Your task to perform on an android device: Open Maps and search for coffee Image 0: 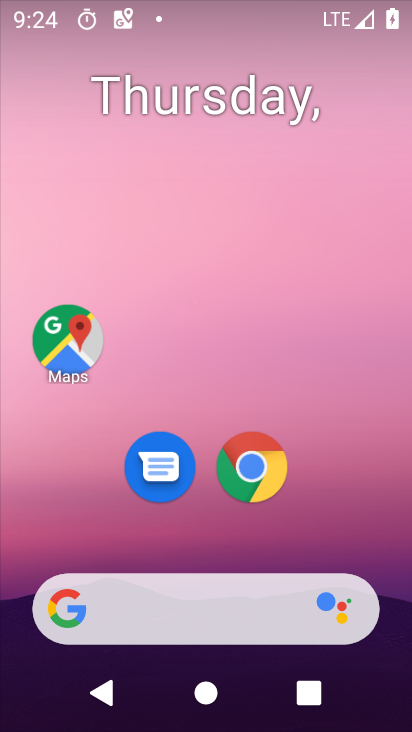
Step 0: drag from (321, 561) to (380, 118)
Your task to perform on an android device: Open Maps and search for coffee Image 1: 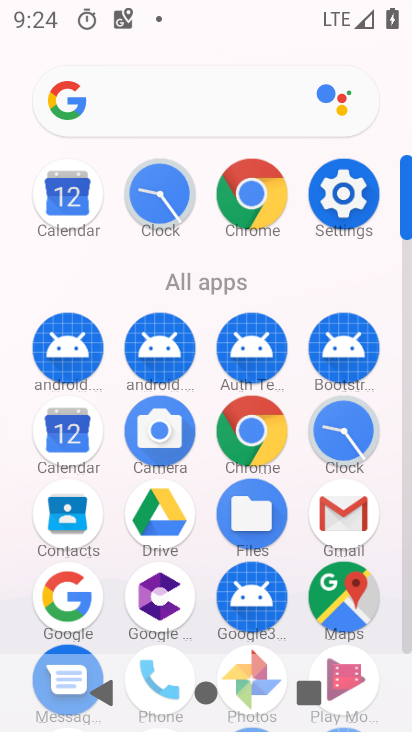
Step 1: click (343, 596)
Your task to perform on an android device: Open Maps and search for coffee Image 2: 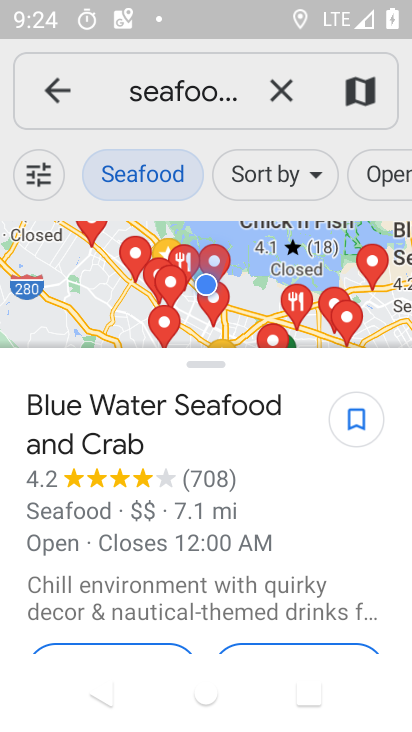
Step 2: click (240, 100)
Your task to perform on an android device: Open Maps and search for coffee Image 3: 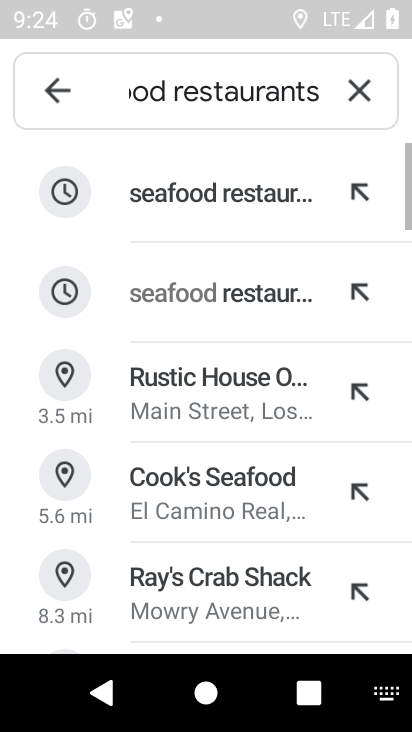
Step 3: click (354, 87)
Your task to perform on an android device: Open Maps and search for coffee Image 4: 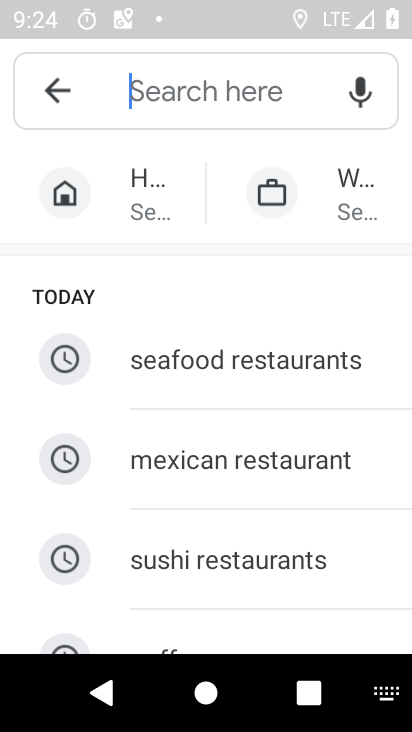
Step 4: type "coffee"
Your task to perform on an android device: Open Maps and search for coffee Image 5: 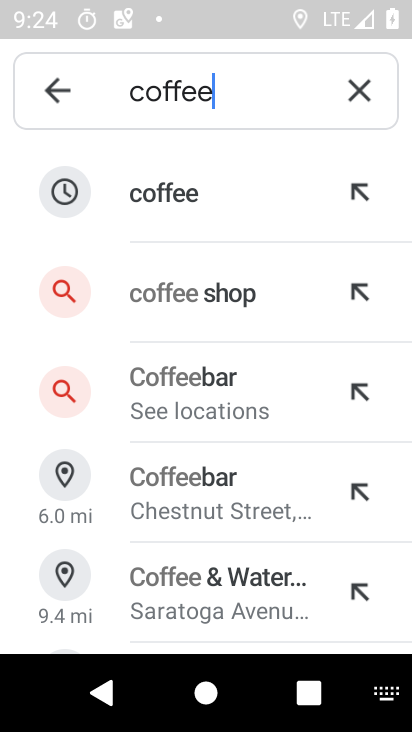
Step 5: click (178, 178)
Your task to perform on an android device: Open Maps and search for coffee Image 6: 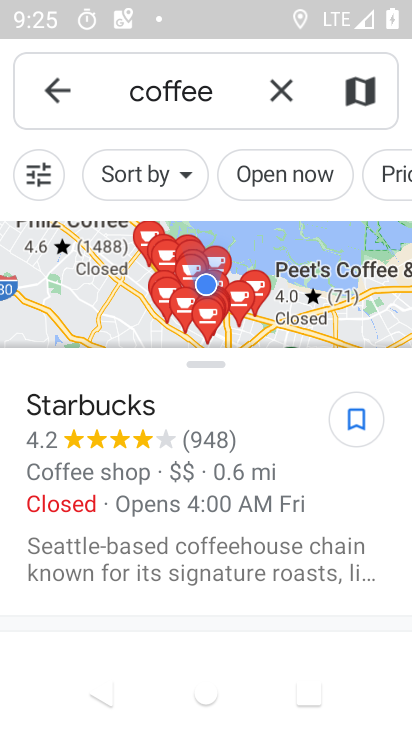
Step 6: task complete